Your task to perform on an android device: find which apps use the phone's location Image 0: 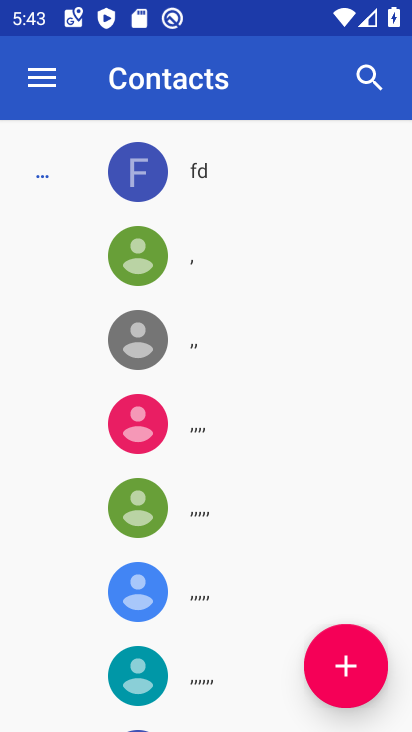
Step 0: press home button
Your task to perform on an android device: find which apps use the phone's location Image 1: 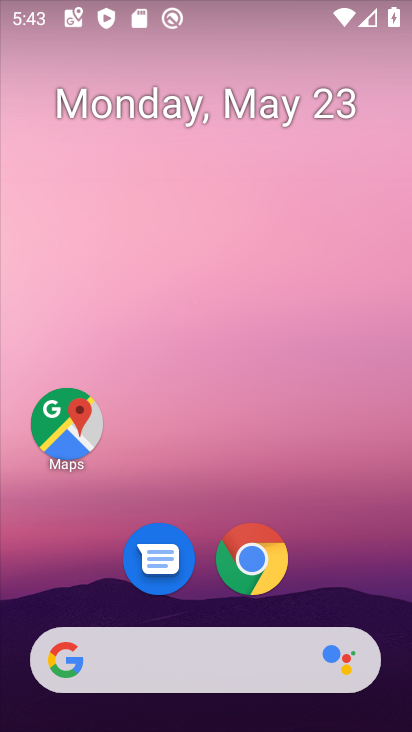
Step 1: drag from (245, 630) to (305, 6)
Your task to perform on an android device: find which apps use the phone's location Image 2: 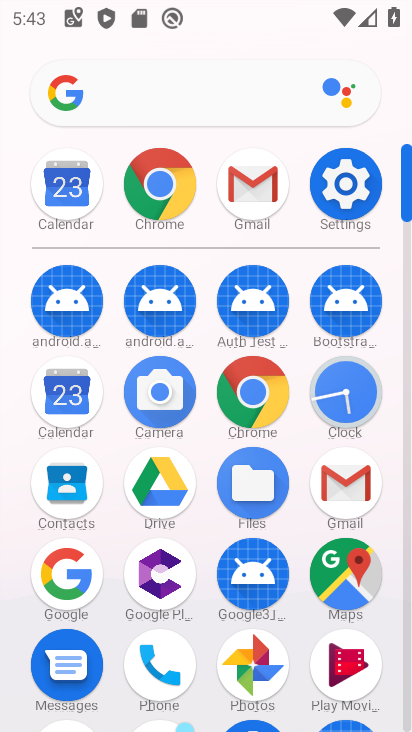
Step 2: click (349, 189)
Your task to perform on an android device: find which apps use the phone's location Image 3: 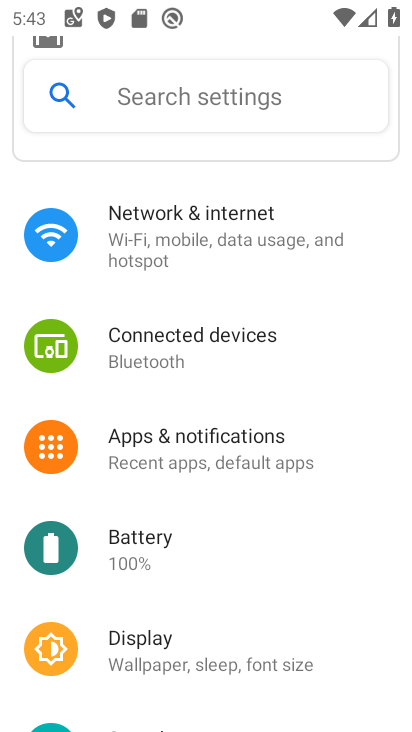
Step 3: drag from (284, 570) to (333, 41)
Your task to perform on an android device: find which apps use the phone's location Image 4: 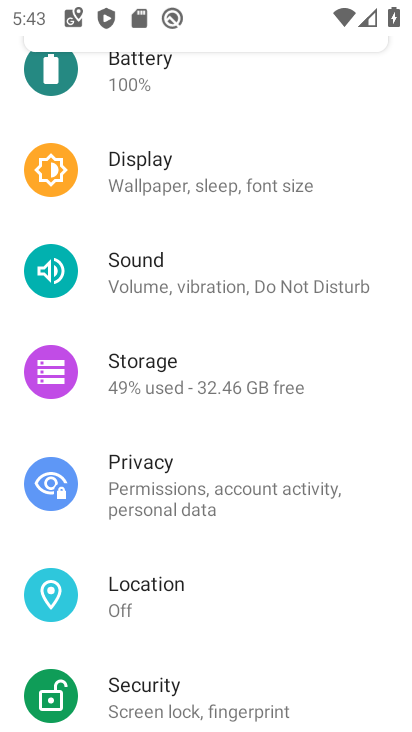
Step 4: drag from (186, 681) to (226, 223)
Your task to perform on an android device: find which apps use the phone's location Image 5: 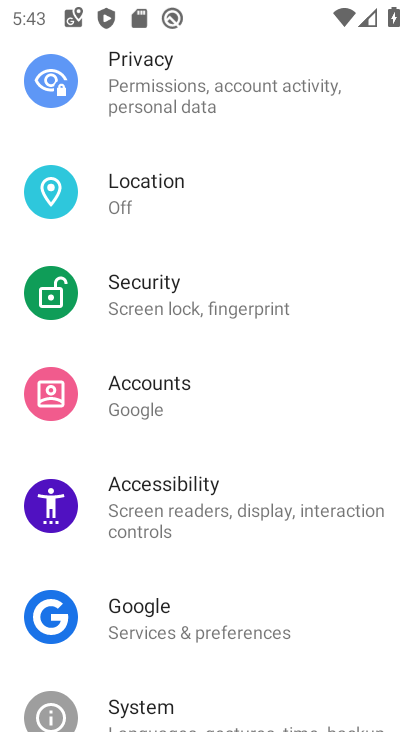
Step 5: click (194, 188)
Your task to perform on an android device: find which apps use the phone's location Image 6: 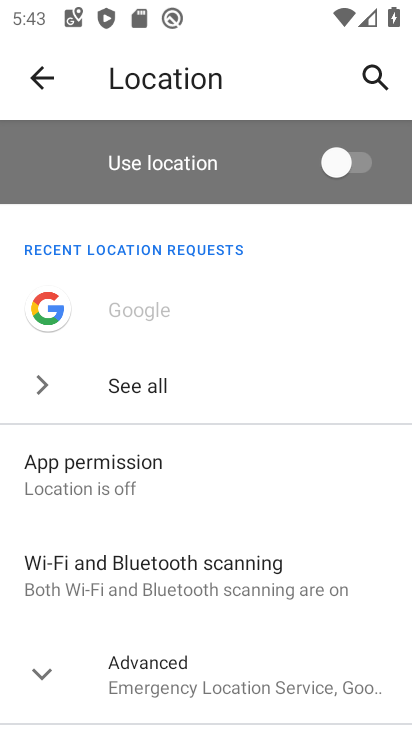
Step 6: drag from (256, 494) to (249, 124)
Your task to perform on an android device: find which apps use the phone's location Image 7: 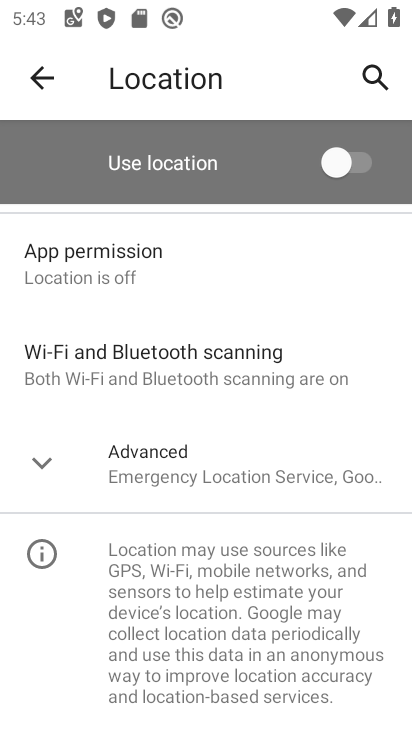
Step 7: click (245, 466)
Your task to perform on an android device: find which apps use the phone's location Image 8: 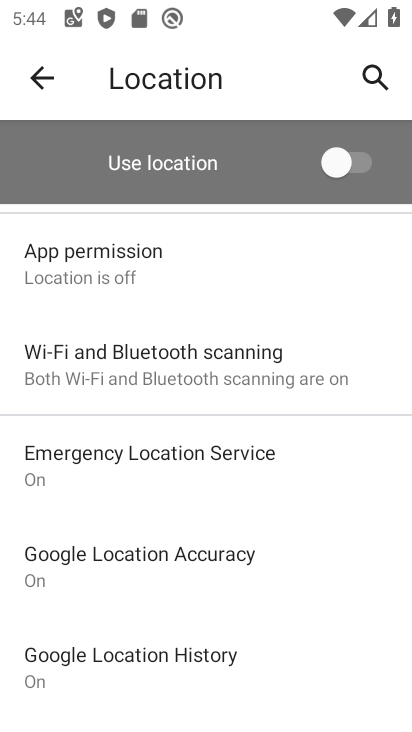
Step 8: task complete